Your task to perform on an android device: remove spam from my inbox in the gmail app Image 0: 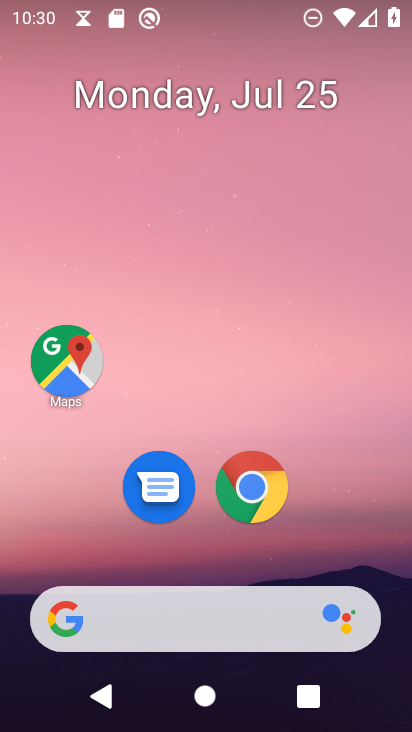
Step 0: drag from (218, 479) to (255, 17)
Your task to perform on an android device: remove spam from my inbox in the gmail app Image 1: 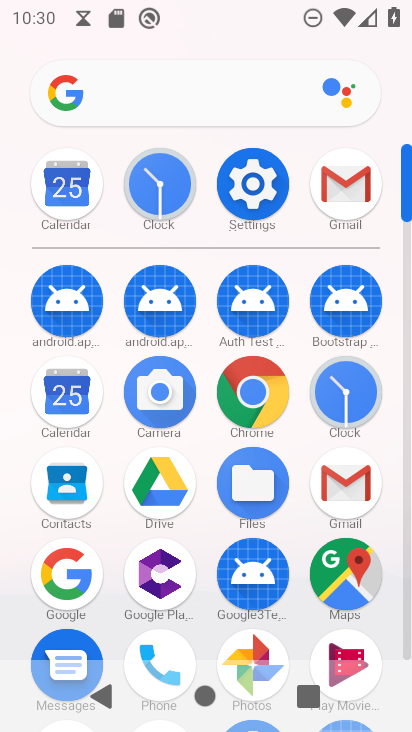
Step 1: click (332, 181)
Your task to perform on an android device: remove spam from my inbox in the gmail app Image 2: 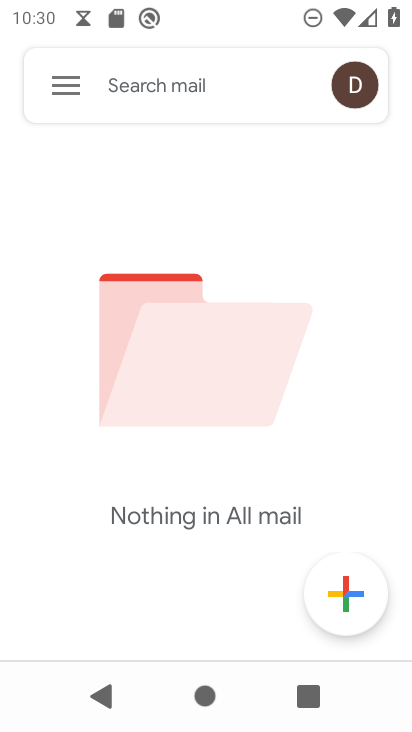
Step 2: click (70, 79)
Your task to perform on an android device: remove spam from my inbox in the gmail app Image 3: 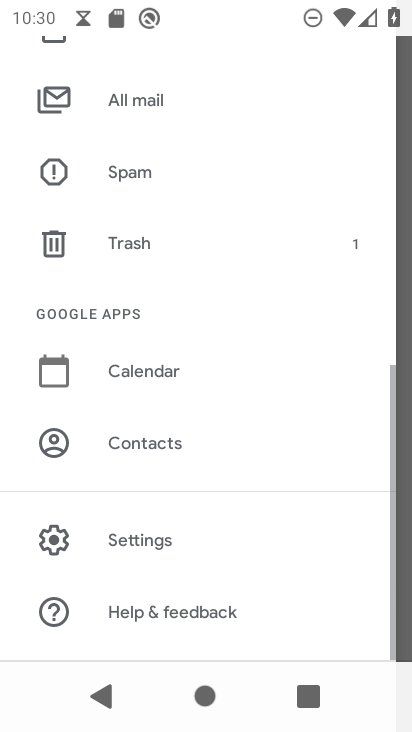
Step 3: click (107, 167)
Your task to perform on an android device: remove spam from my inbox in the gmail app Image 4: 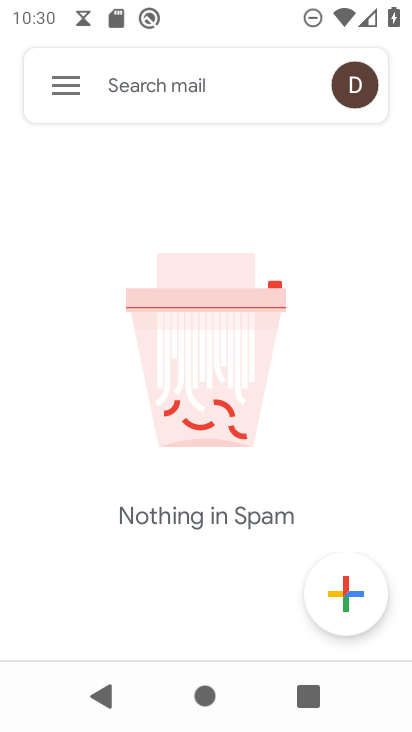
Step 4: task complete